Your task to perform on an android device: allow cookies in the chrome app Image 0: 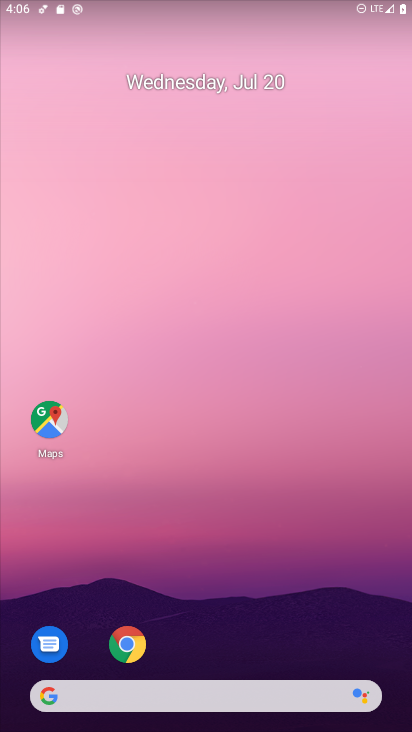
Step 0: drag from (203, 648) to (207, 197)
Your task to perform on an android device: allow cookies in the chrome app Image 1: 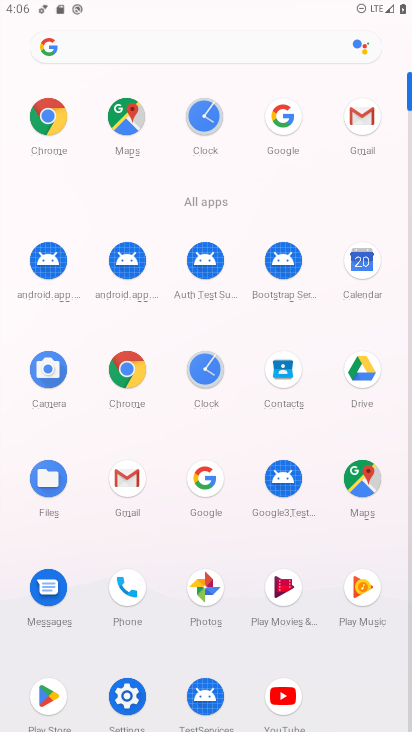
Step 1: click (119, 395)
Your task to perform on an android device: allow cookies in the chrome app Image 2: 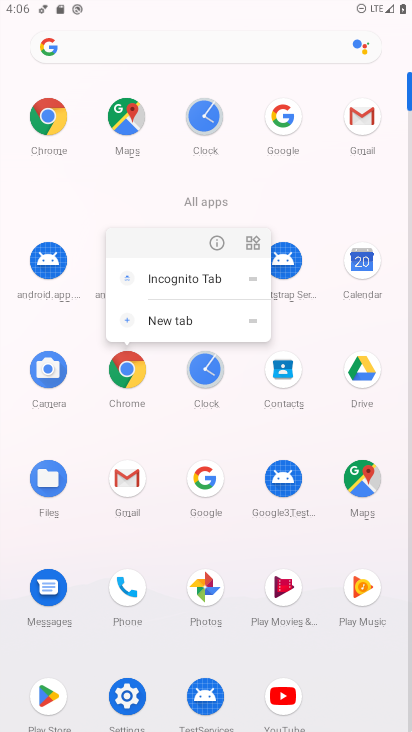
Step 2: click (133, 388)
Your task to perform on an android device: allow cookies in the chrome app Image 3: 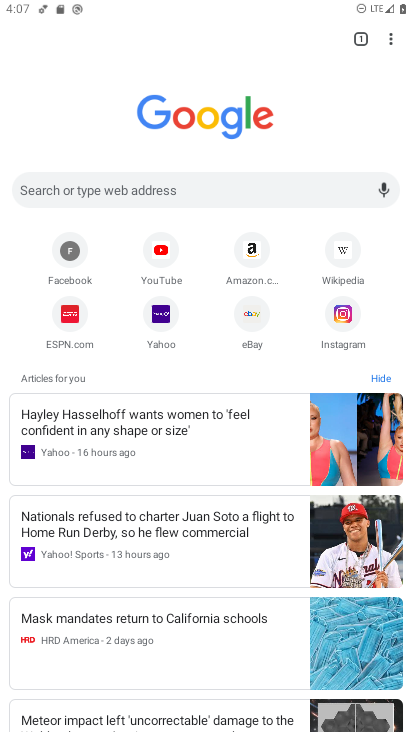
Step 3: click (390, 47)
Your task to perform on an android device: allow cookies in the chrome app Image 4: 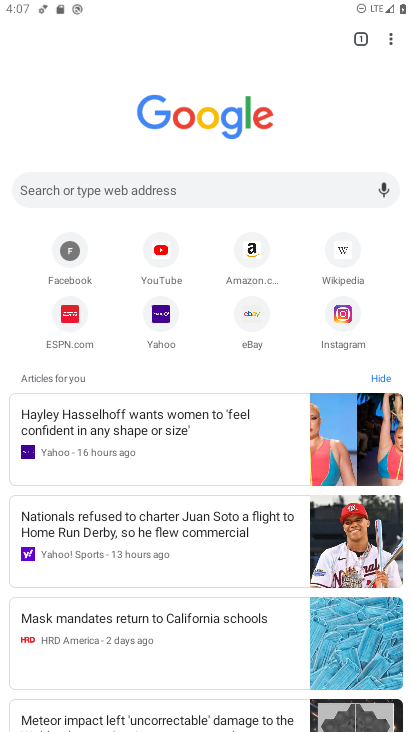
Step 4: click (395, 46)
Your task to perform on an android device: allow cookies in the chrome app Image 5: 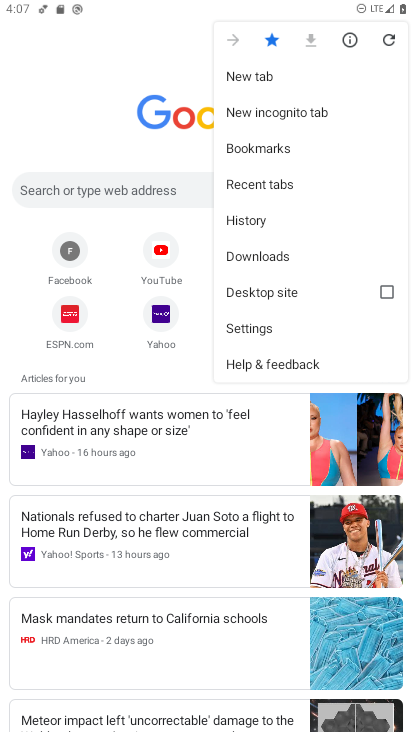
Step 5: click (264, 329)
Your task to perform on an android device: allow cookies in the chrome app Image 6: 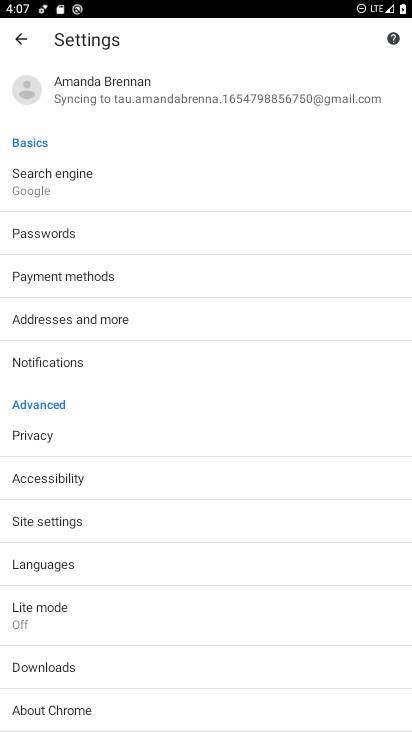
Step 6: click (53, 529)
Your task to perform on an android device: allow cookies in the chrome app Image 7: 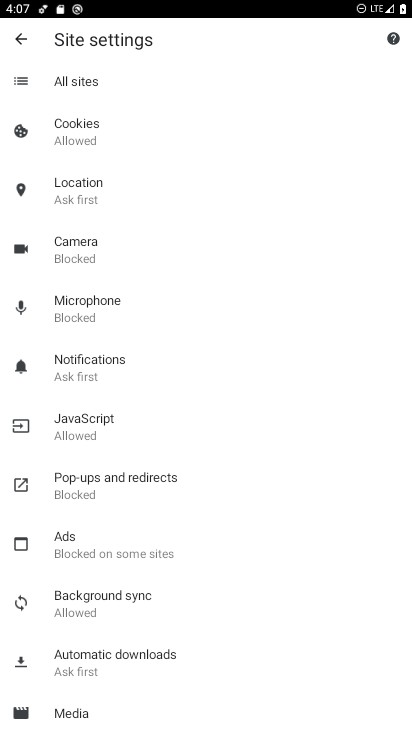
Step 7: click (80, 138)
Your task to perform on an android device: allow cookies in the chrome app Image 8: 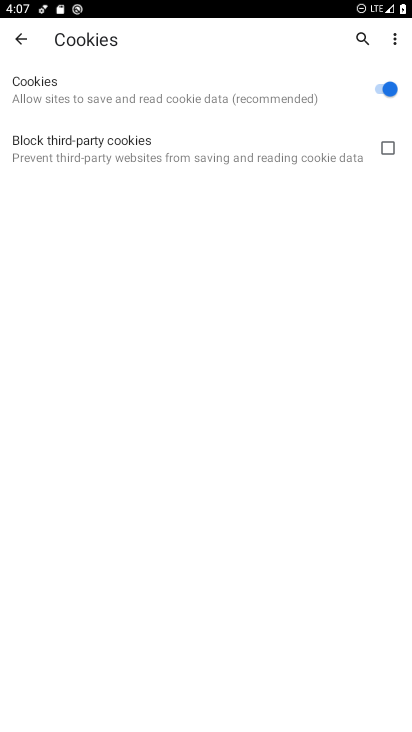
Step 8: task complete